Your task to perform on an android device: Go to Google Image 0: 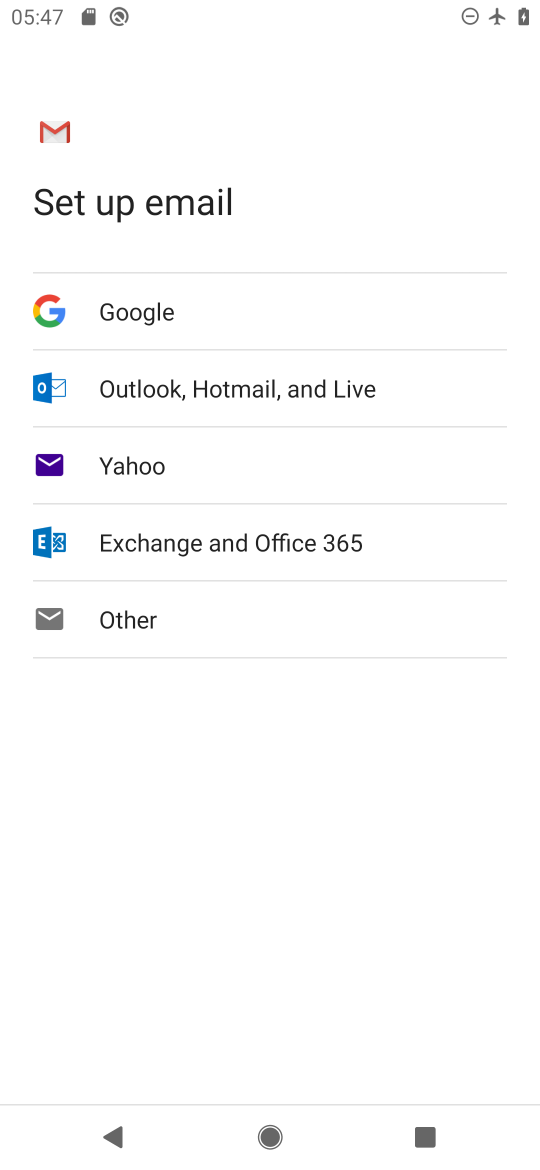
Step 0: press back button
Your task to perform on an android device: Go to Google Image 1: 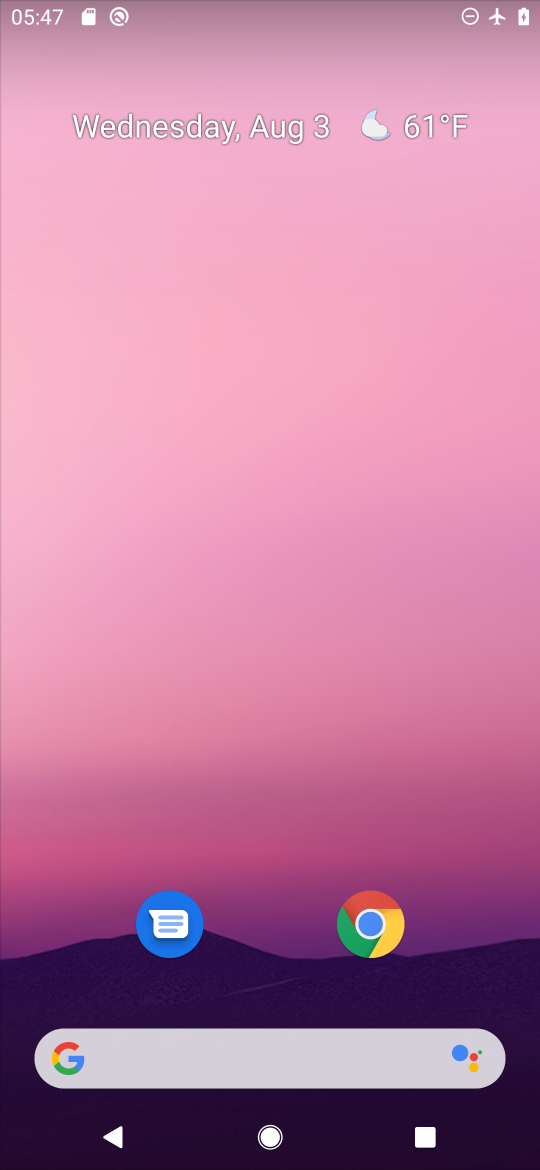
Step 1: drag from (254, 946) to (261, 240)
Your task to perform on an android device: Go to Google Image 2: 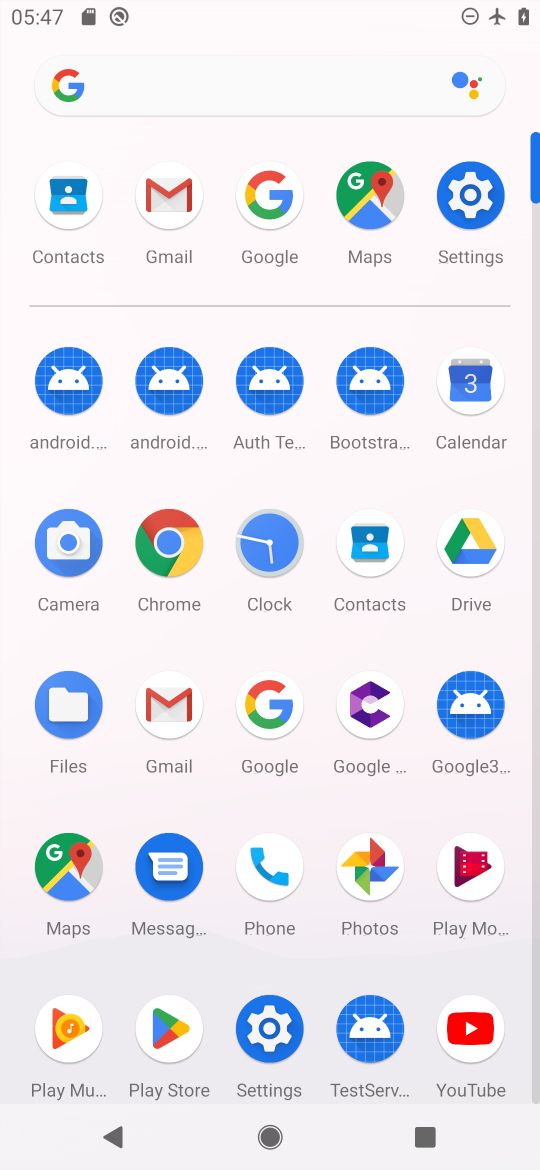
Step 2: click (273, 215)
Your task to perform on an android device: Go to Google Image 3: 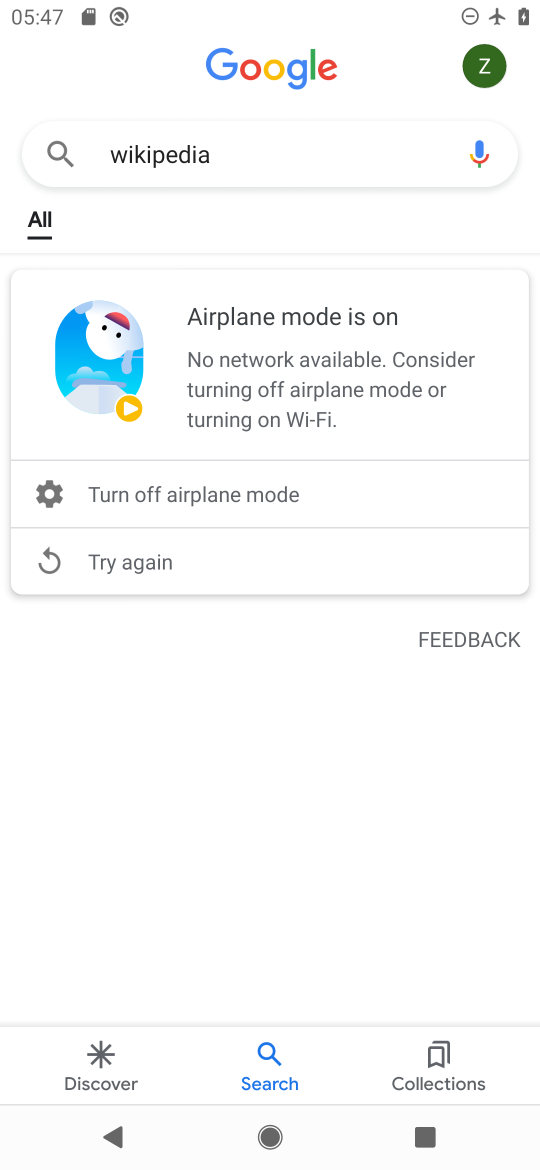
Step 3: task complete